Your task to perform on an android device: Open Amazon Image 0: 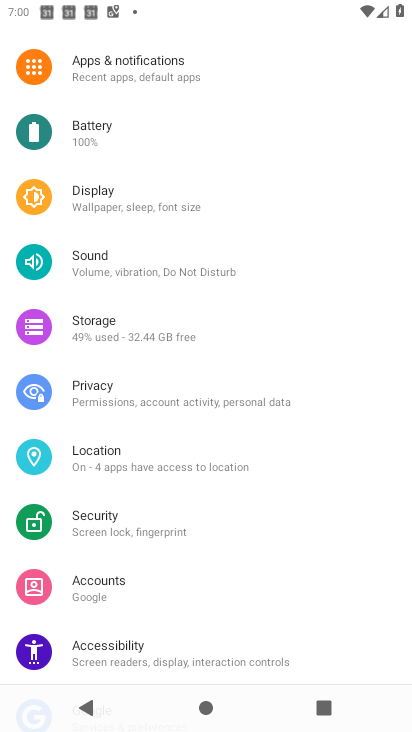
Step 0: press home button
Your task to perform on an android device: Open Amazon Image 1: 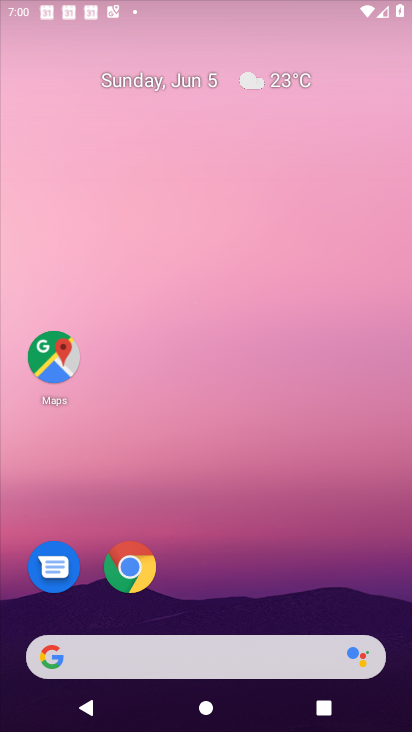
Step 1: drag from (393, 647) to (281, 23)
Your task to perform on an android device: Open Amazon Image 2: 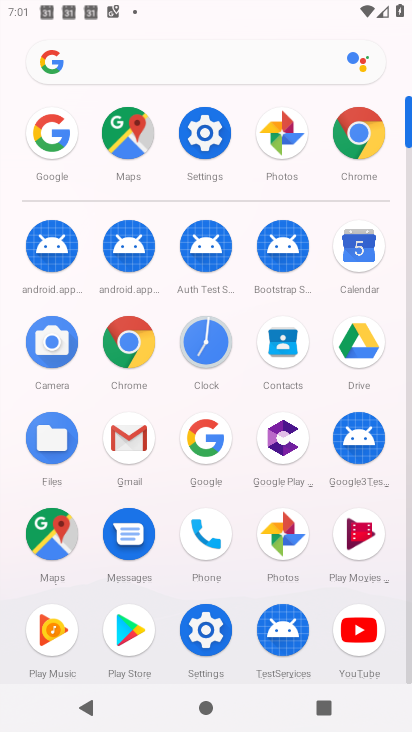
Step 2: click (215, 453)
Your task to perform on an android device: Open Amazon Image 3: 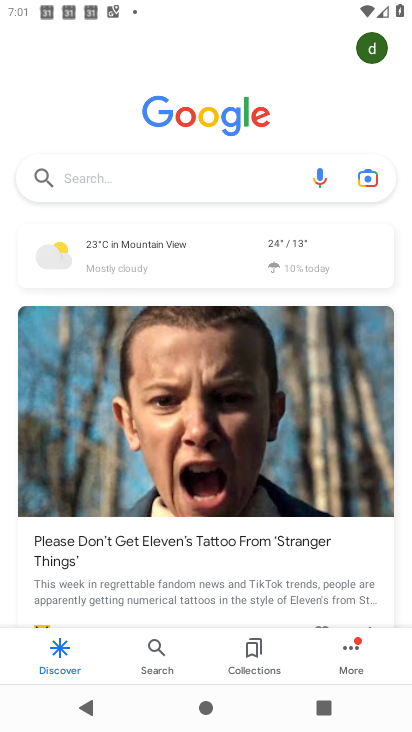
Step 3: click (141, 179)
Your task to perform on an android device: Open Amazon Image 4: 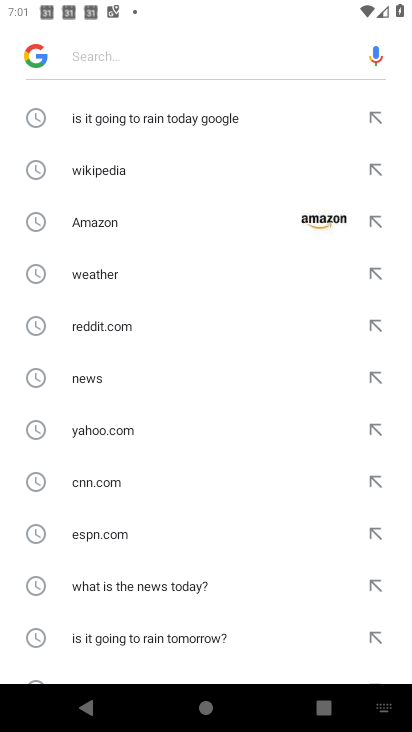
Step 4: click (118, 229)
Your task to perform on an android device: Open Amazon Image 5: 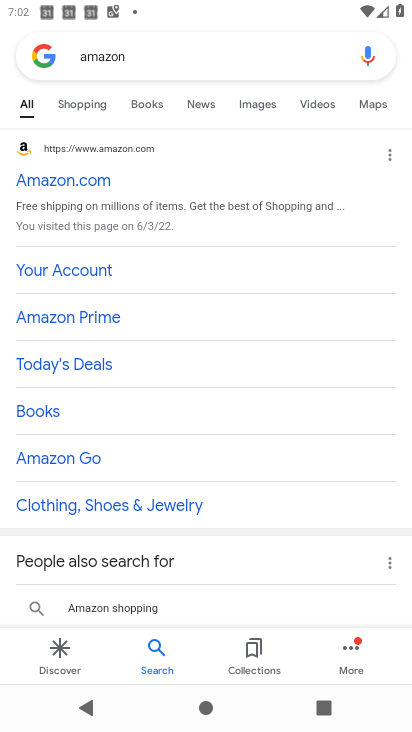
Step 5: task complete